Your task to perform on an android device: find snoozed emails in the gmail app Image 0: 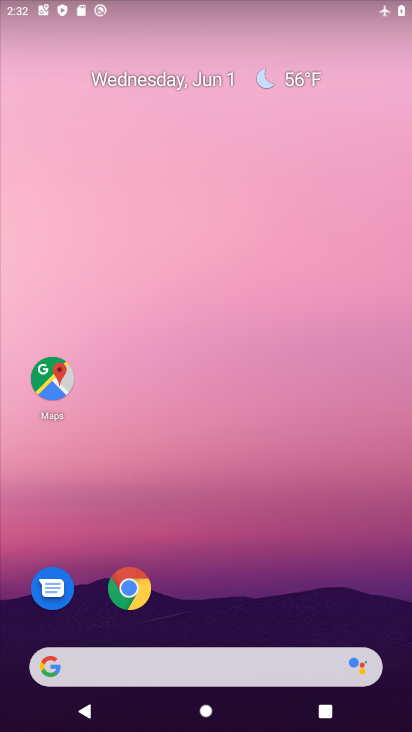
Step 0: drag from (274, 498) to (146, 24)
Your task to perform on an android device: find snoozed emails in the gmail app Image 1: 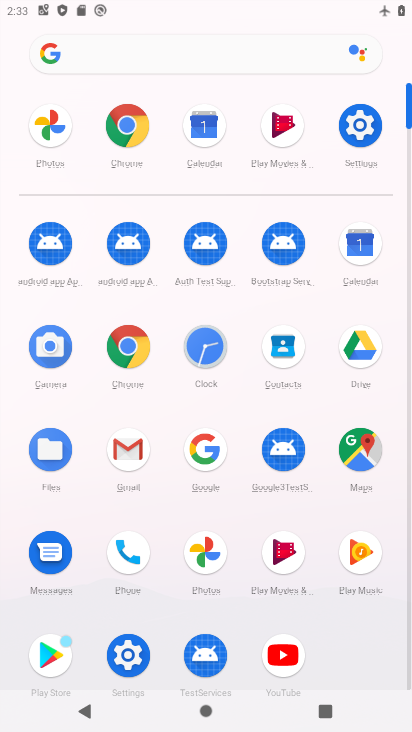
Step 1: click (127, 452)
Your task to perform on an android device: find snoozed emails in the gmail app Image 2: 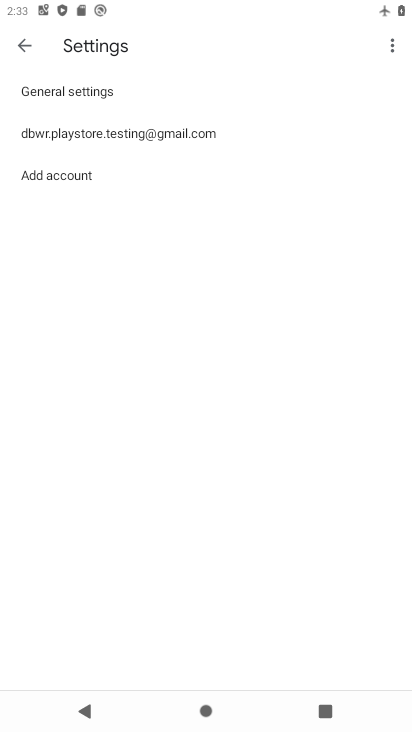
Step 2: click (25, 53)
Your task to perform on an android device: find snoozed emails in the gmail app Image 3: 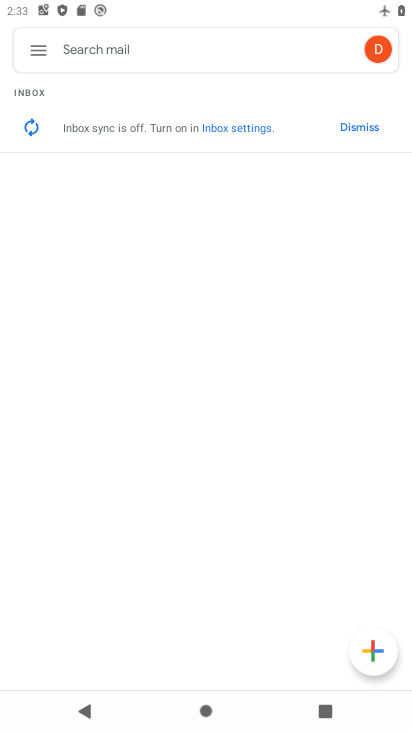
Step 3: click (35, 50)
Your task to perform on an android device: find snoozed emails in the gmail app Image 4: 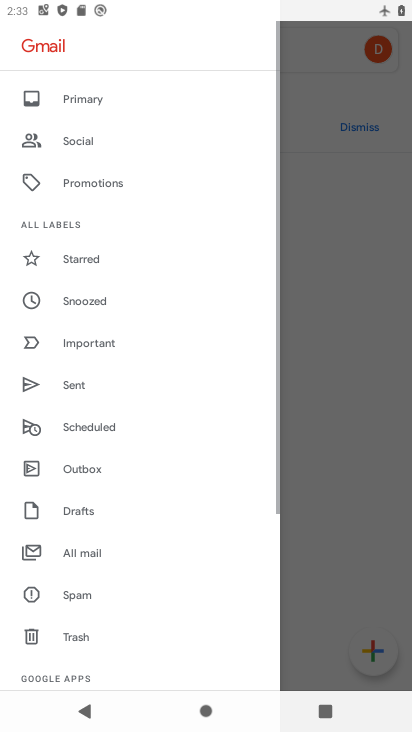
Step 4: click (95, 310)
Your task to perform on an android device: find snoozed emails in the gmail app Image 5: 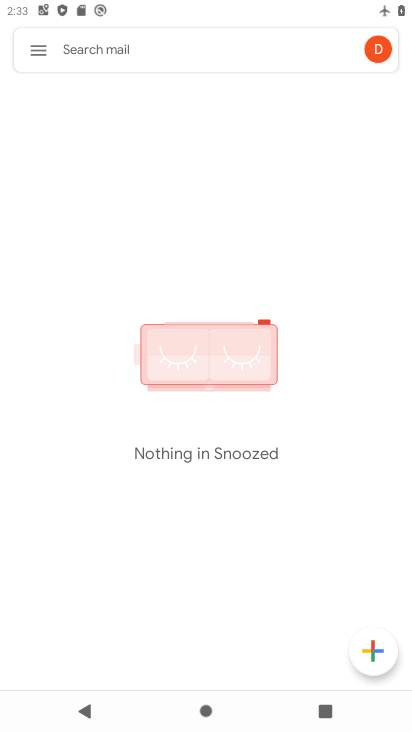
Step 5: task complete